Your task to perform on an android device: star an email in the gmail app Image 0: 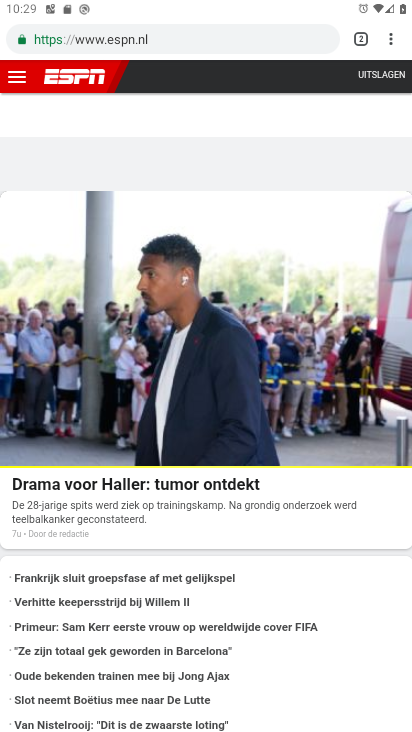
Step 0: press home button
Your task to perform on an android device: star an email in the gmail app Image 1: 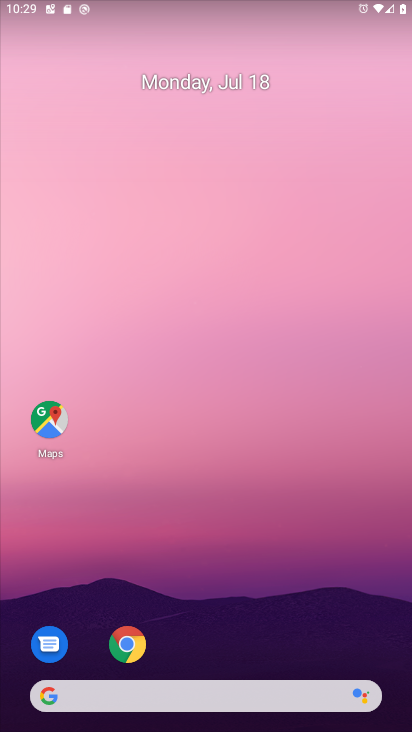
Step 1: drag from (222, 655) to (243, 67)
Your task to perform on an android device: star an email in the gmail app Image 2: 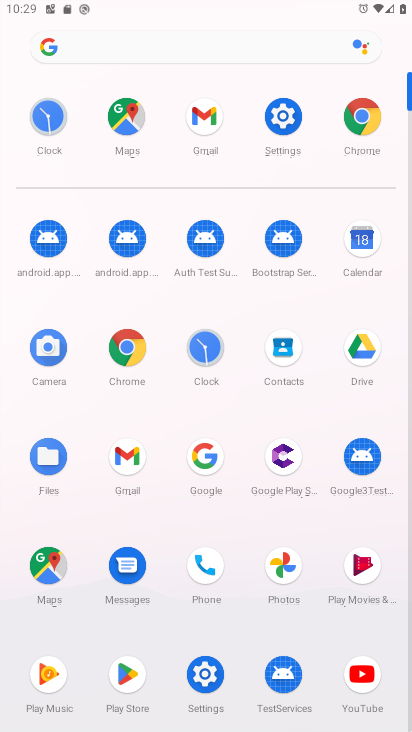
Step 2: click (119, 477)
Your task to perform on an android device: star an email in the gmail app Image 3: 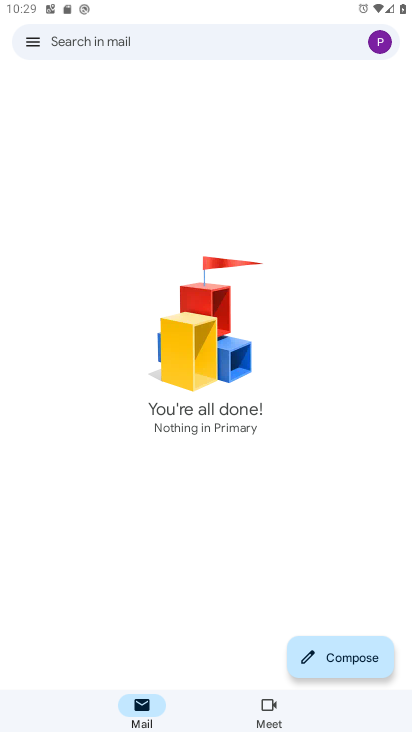
Step 3: click (34, 34)
Your task to perform on an android device: star an email in the gmail app Image 4: 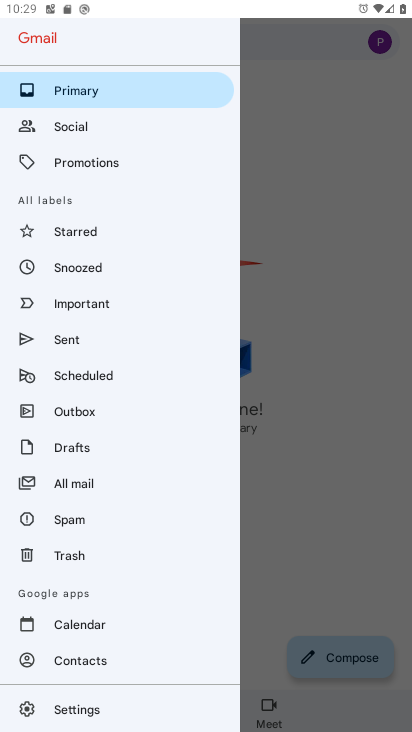
Step 4: click (65, 230)
Your task to perform on an android device: star an email in the gmail app Image 5: 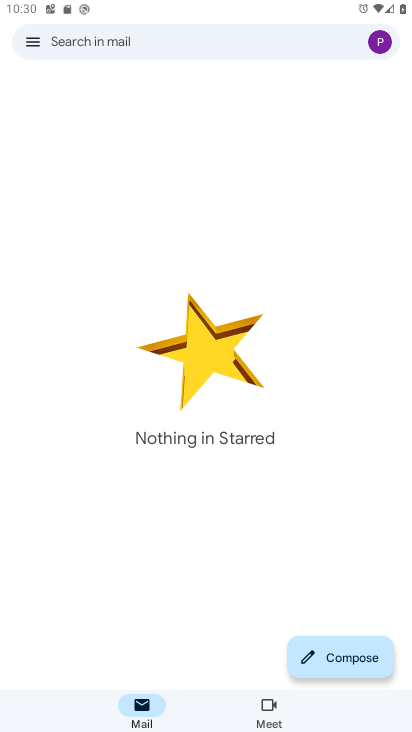
Step 5: task complete